Your task to perform on an android device: find snoozed emails in the gmail app Image 0: 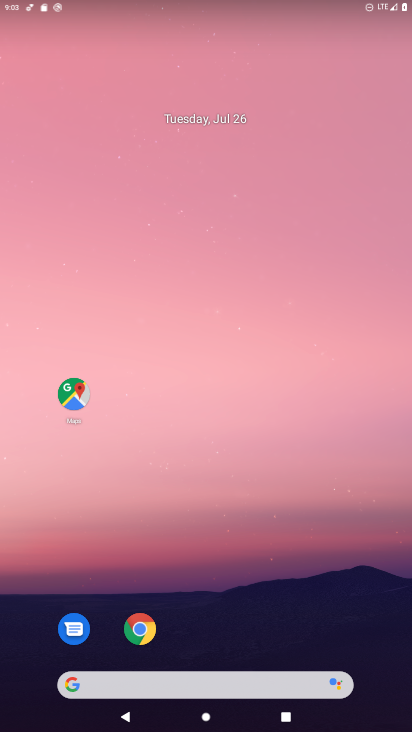
Step 0: press home button
Your task to perform on an android device: find snoozed emails in the gmail app Image 1: 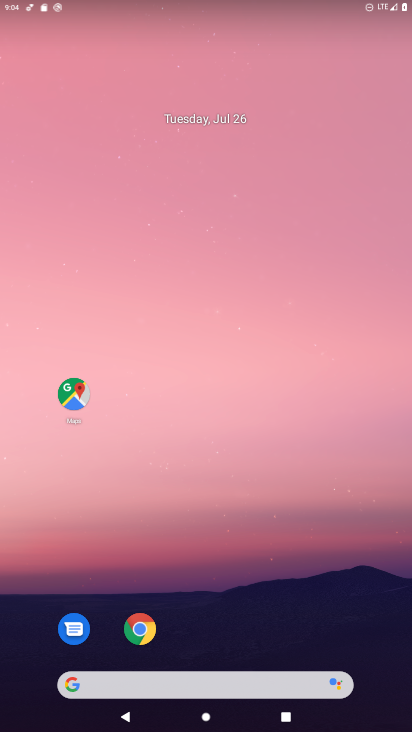
Step 1: drag from (292, 653) to (201, 238)
Your task to perform on an android device: find snoozed emails in the gmail app Image 2: 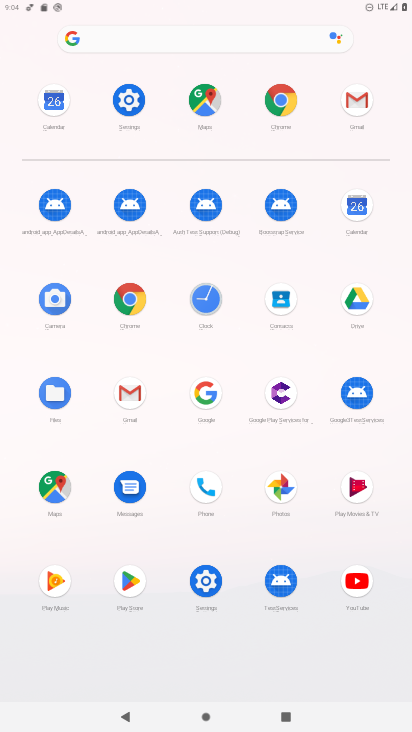
Step 2: click (113, 409)
Your task to perform on an android device: find snoozed emails in the gmail app Image 3: 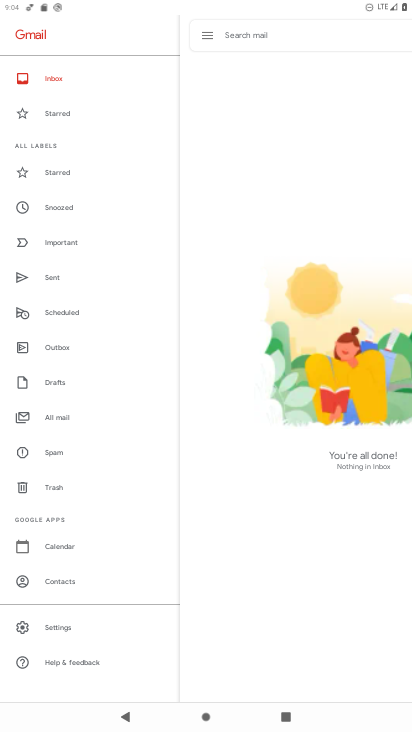
Step 3: click (69, 207)
Your task to perform on an android device: find snoozed emails in the gmail app Image 4: 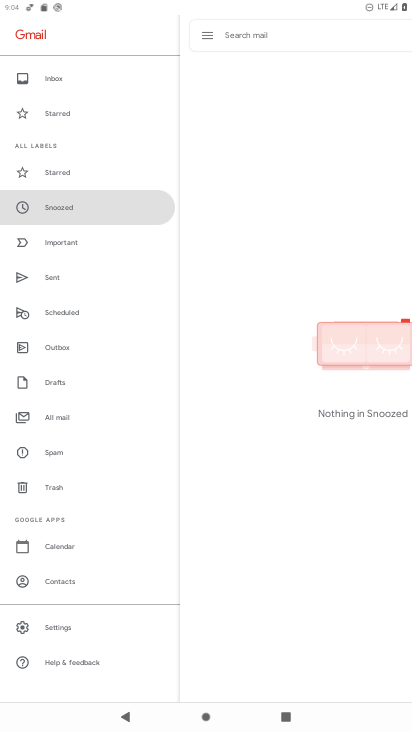
Step 4: task complete